Your task to perform on an android device: Open location settings Image 0: 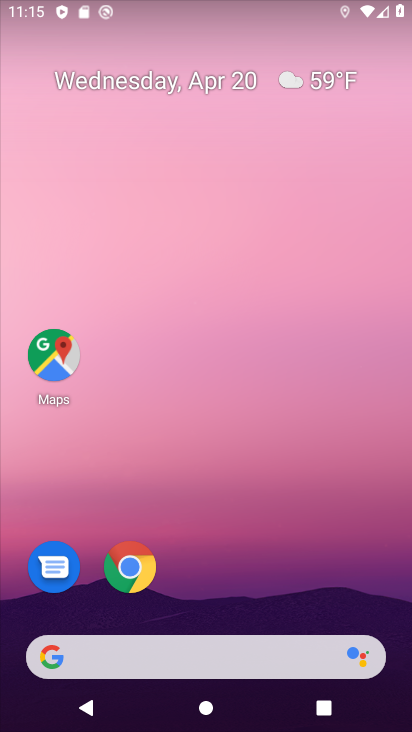
Step 0: drag from (279, 550) to (295, 44)
Your task to perform on an android device: Open location settings Image 1: 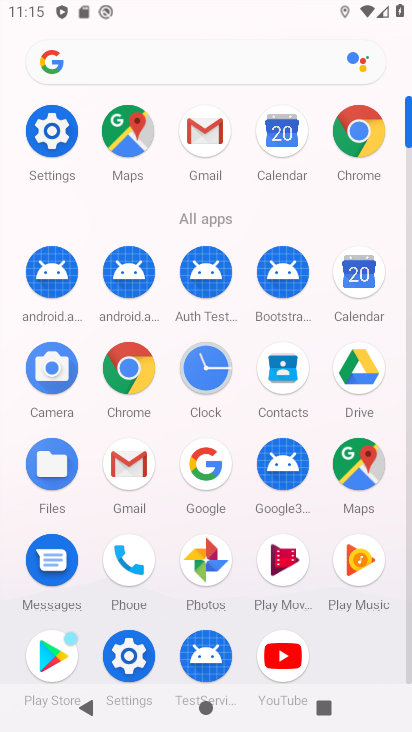
Step 1: click (46, 149)
Your task to perform on an android device: Open location settings Image 2: 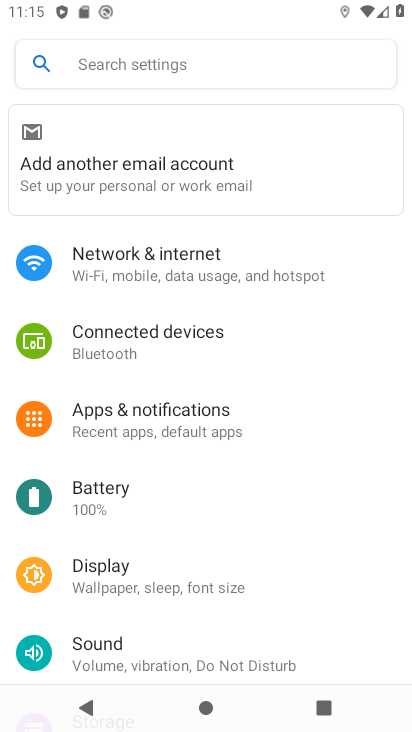
Step 2: drag from (144, 544) to (140, 464)
Your task to perform on an android device: Open location settings Image 3: 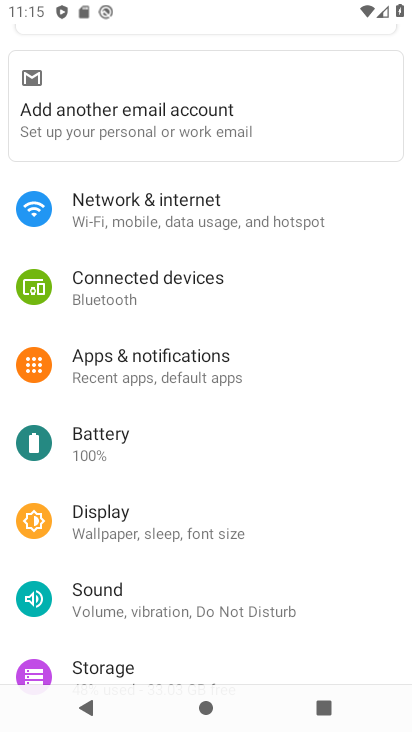
Step 3: drag from (133, 431) to (146, 321)
Your task to perform on an android device: Open location settings Image 4: 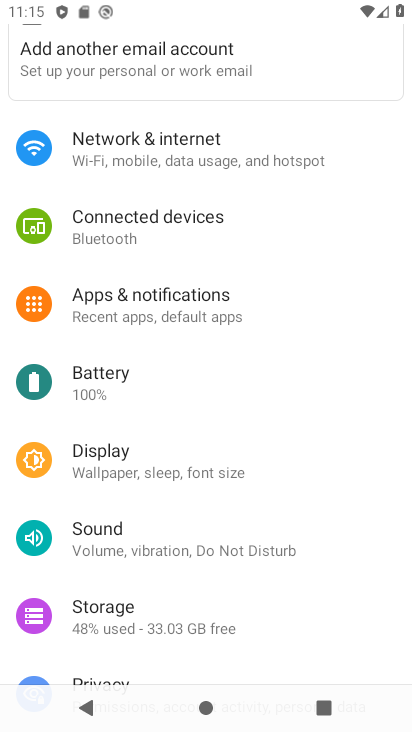
Step 4: drag from (121, 549) to (95, 431)
Your task to perform on an android device: Open location settings Image 5: 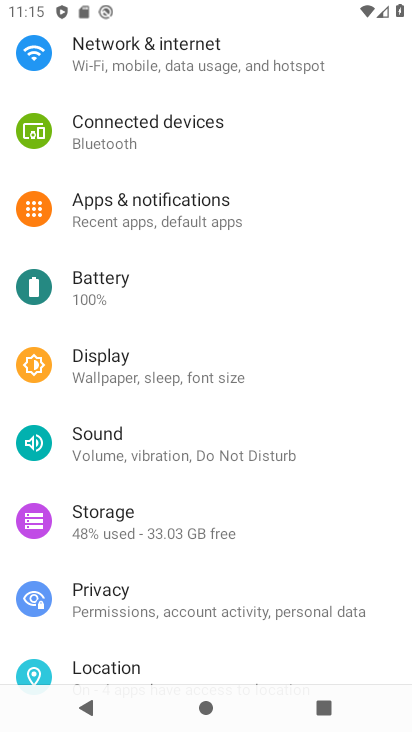
Step 5: drag from (190, 599) to (180, 523)
Your task to perform on an android device: Open location settings Image 6: 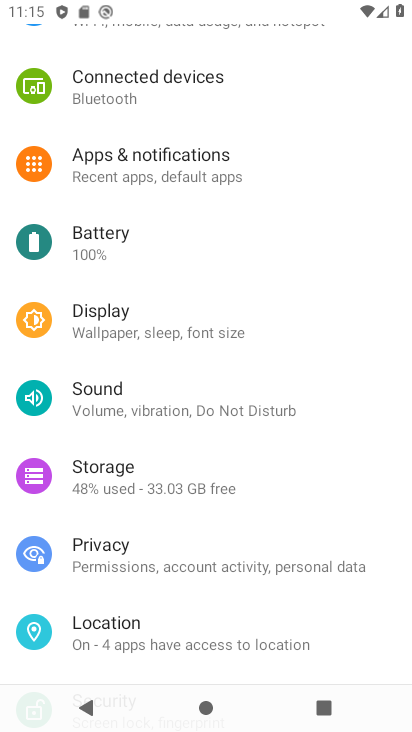
Step 6: click (198, 627)
Your task to perform on an android device: Open location settings Image 7: 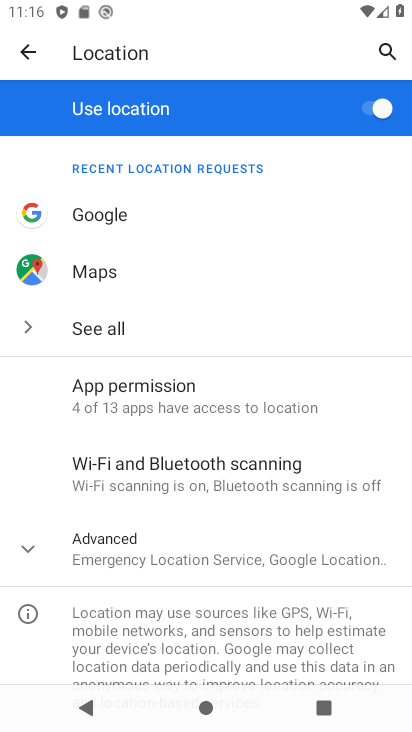
Step 7: task complete